Your task to perform on an android device: turn notification dots off Image 0: 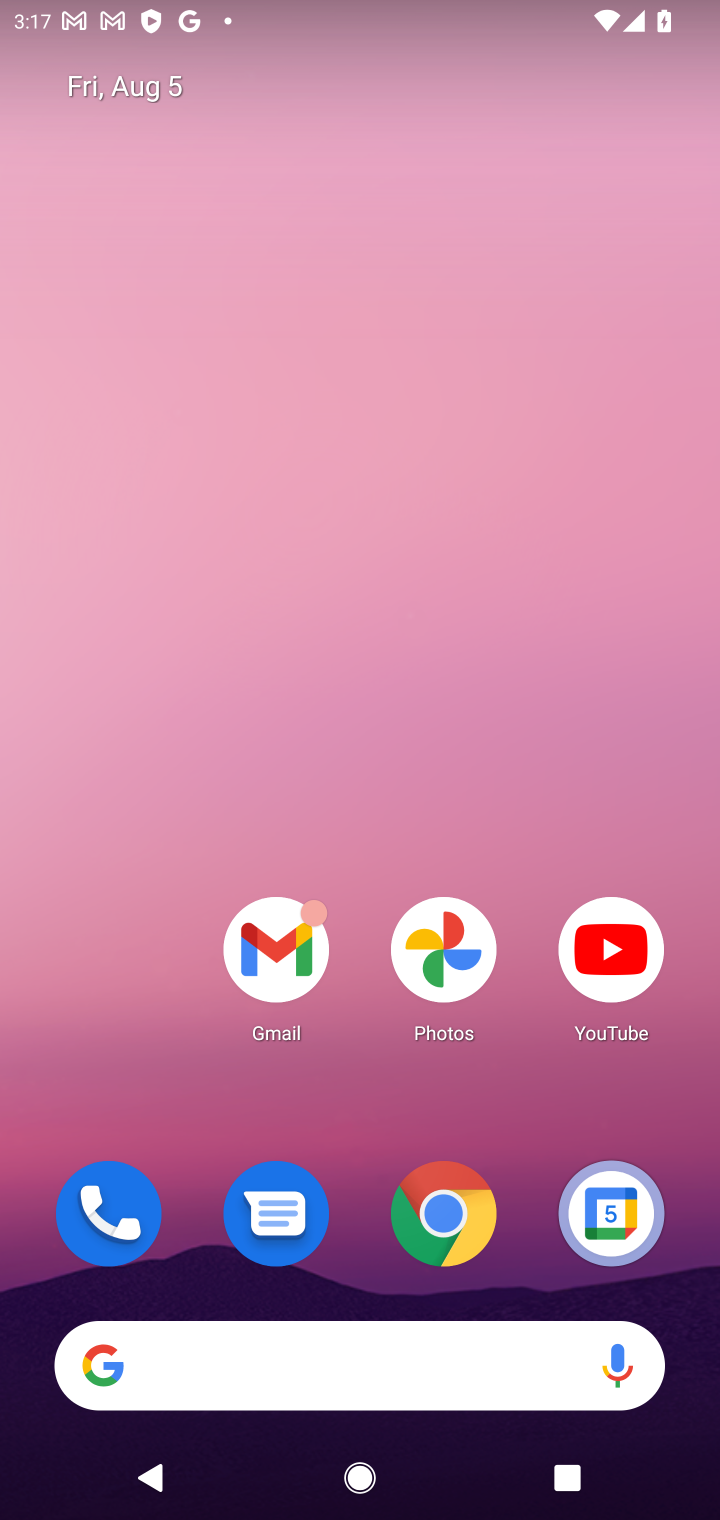
Step 0: drag from (332, 1280) to (328, 38)
Your task to perform on an android device: turn notification dots off Image 1: 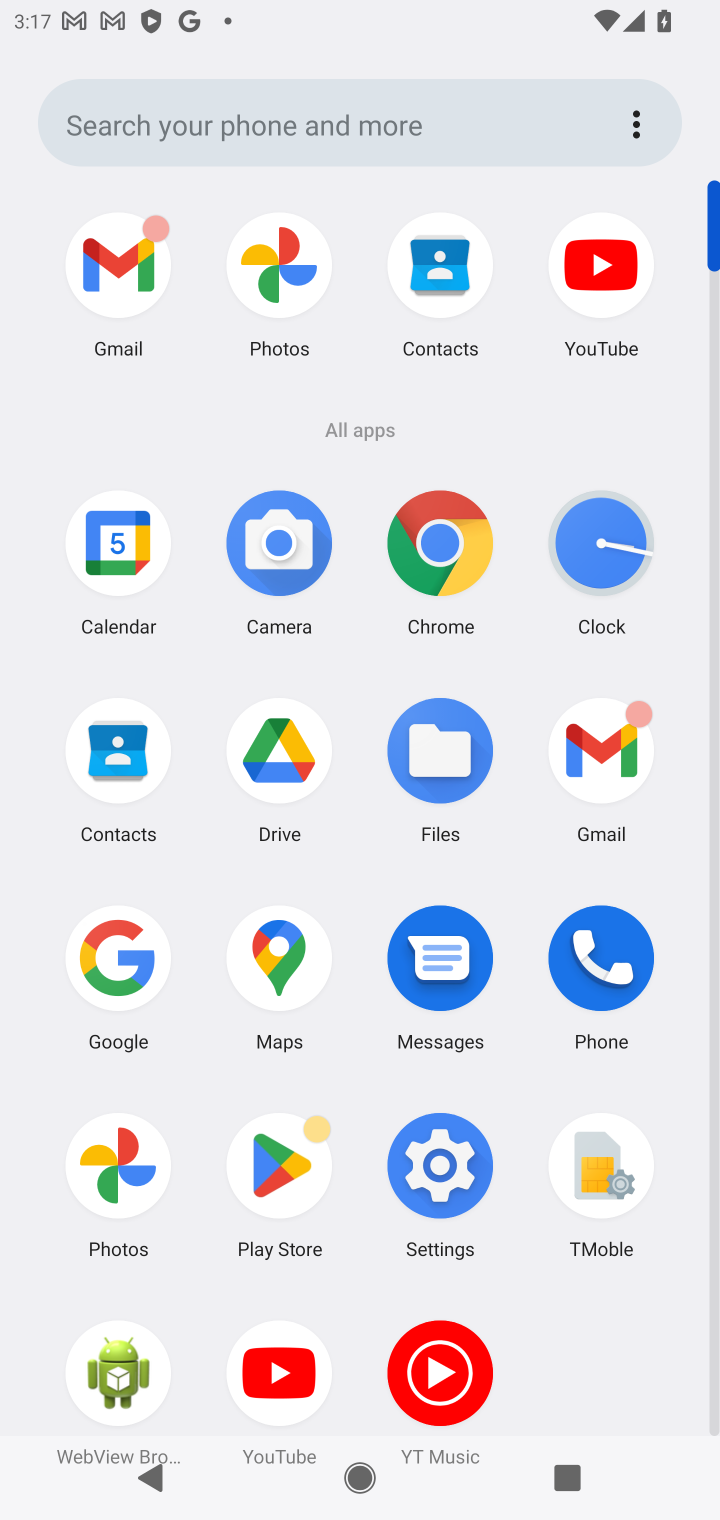
Step 1: click (450, 1199)
Your task to perform on an android device: turn notification dots off Image 2: 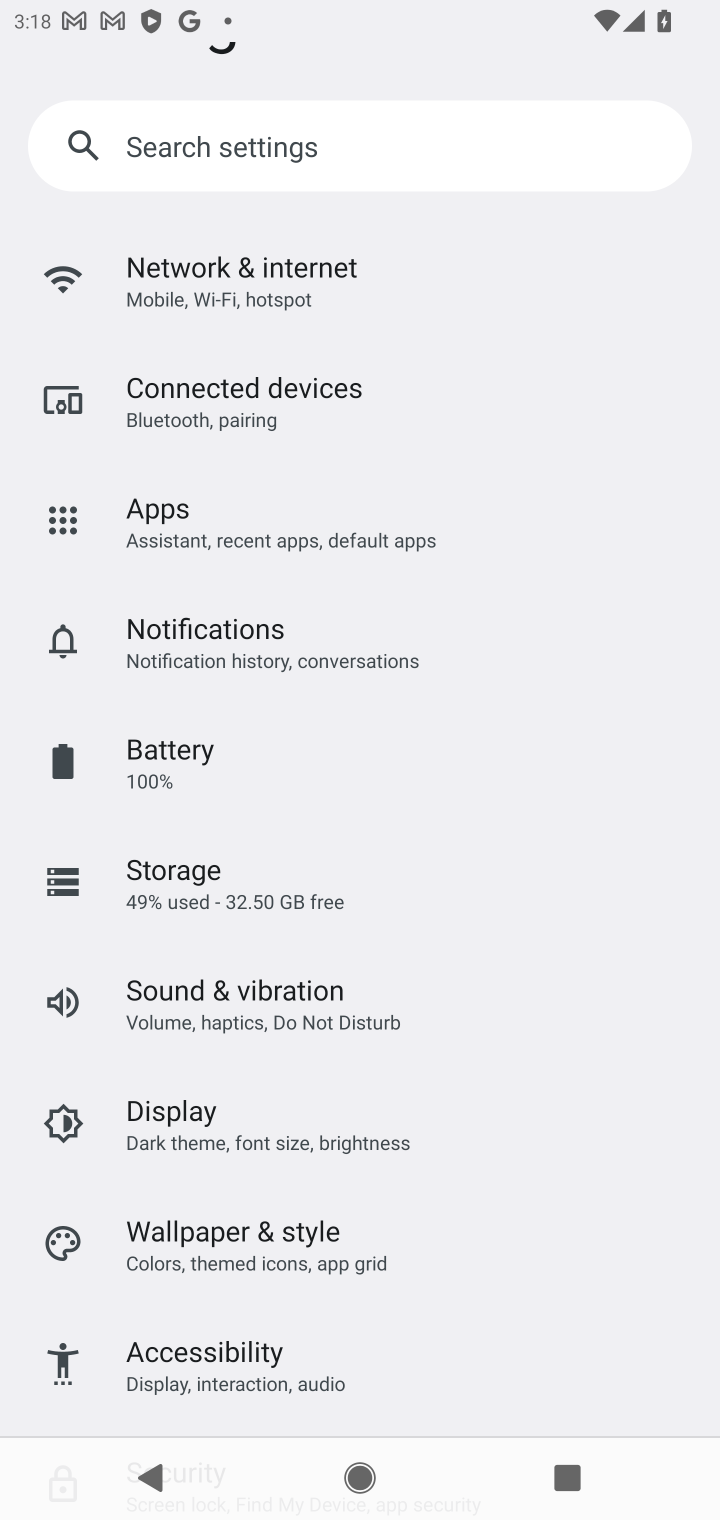
Step 2: click (264, 613)
Your task to perform on an android device: turn notification dots off Image 3: 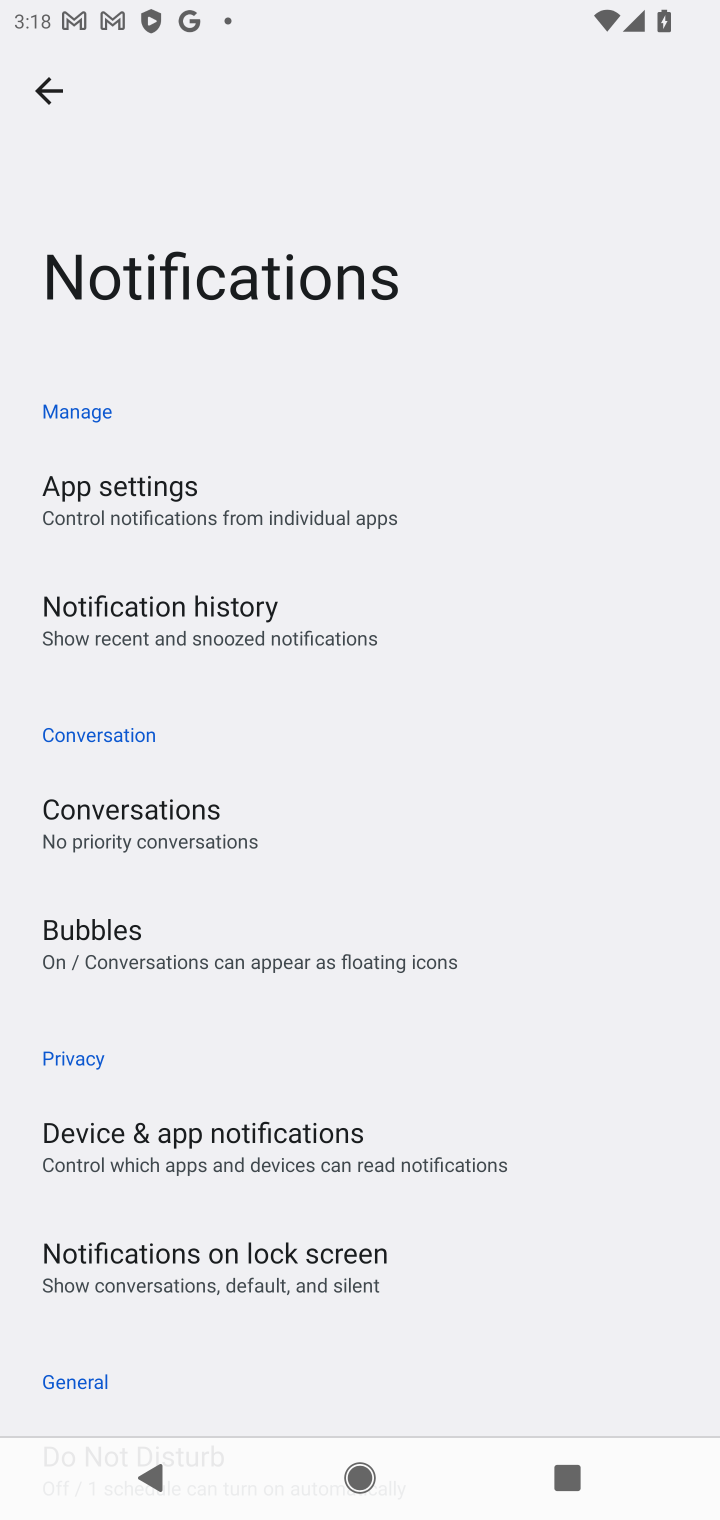
Step 3: task complete